Your task to perform on an android device: Clear all items from cart on target.com. Search for "bose quietcomfort 35" on target.com, select the first entry, and add it to the cart. Image 0: 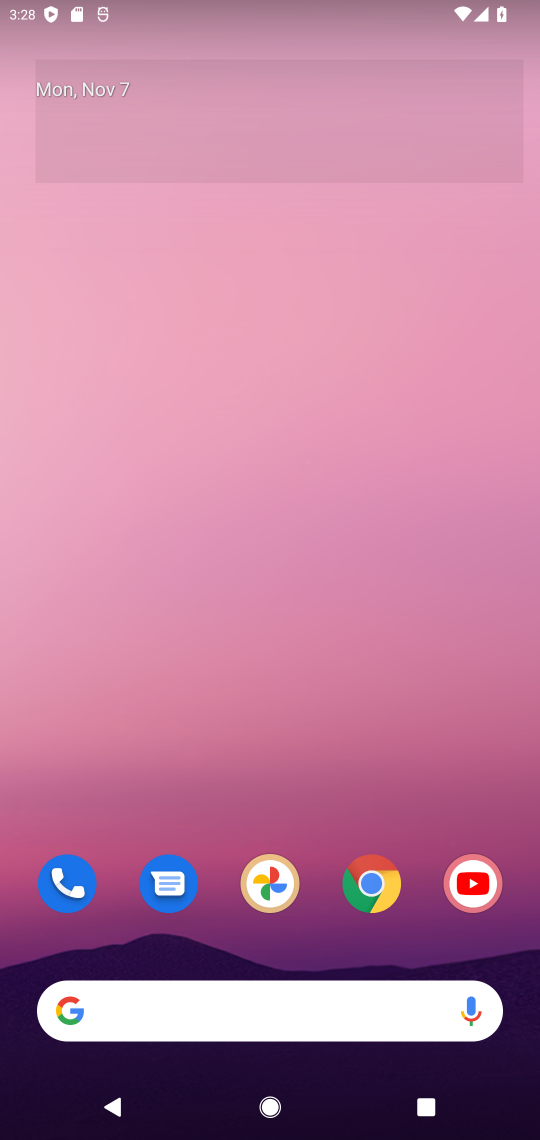
Step 0: click (372, 877)
Your task to perform on an android device: Clear all items from cart on target.com. Search for "bose quietcomfort 35" on target.com, select the first entry, and add it to the cart. Image 1: 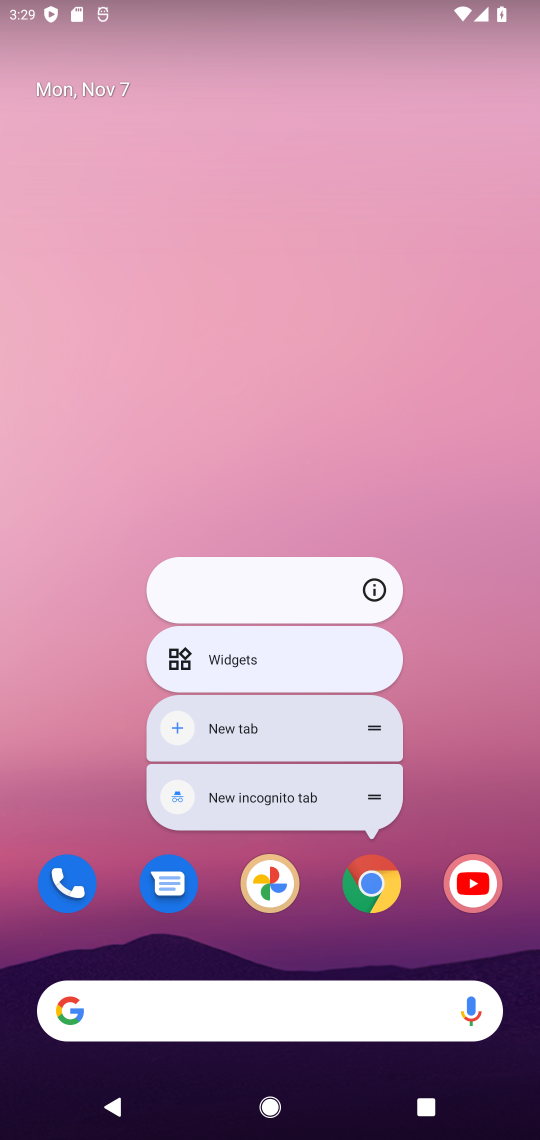
Step 1: click (372, 895)
Your task to perform on an android device: Clear all items from cart on target.com. Search for "bose quietcomfort 35" on target.com, select the first entry, and add it to the cart. Image 2: 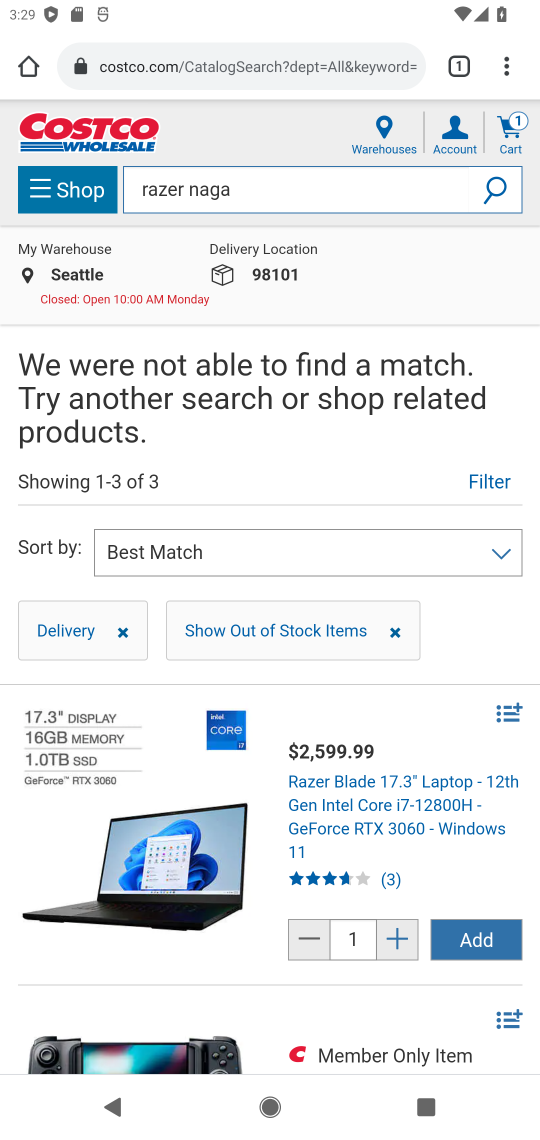
Step 2: click (221, 65)
Your task to perform on an android device: Clear all items from cart on target.com. Search for "bose quietcomfort 35" on target.com, select the first entry, and add it to the cart. Image 3: 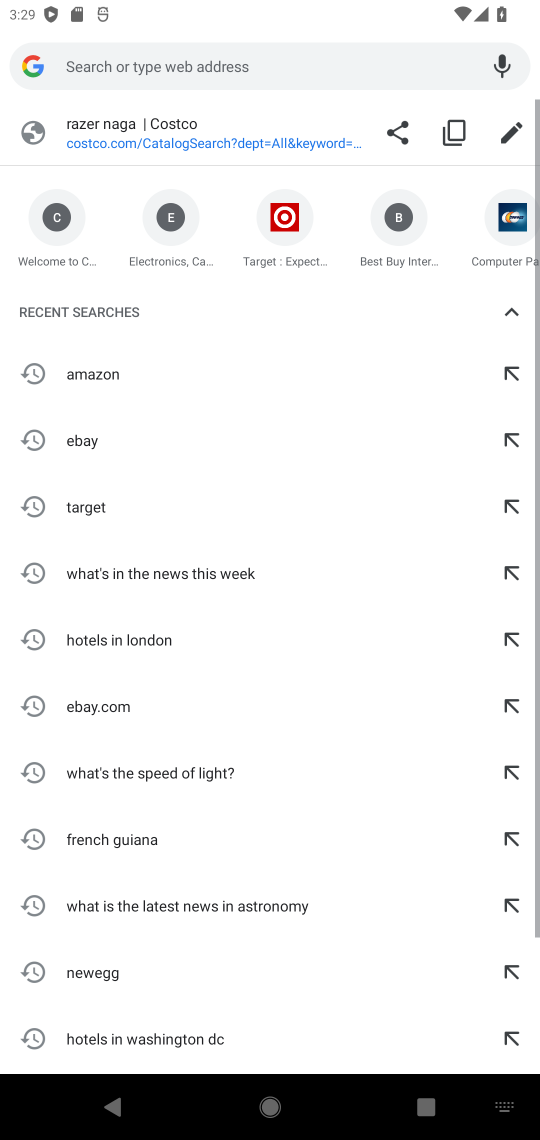
Step 3: click (282, 212)
Your task to perform on an android device: Clear all items from cart on target.com. Search for "bose quietcomfort 35" on target.com, select the first entry, and add it to the cart. Image 4: 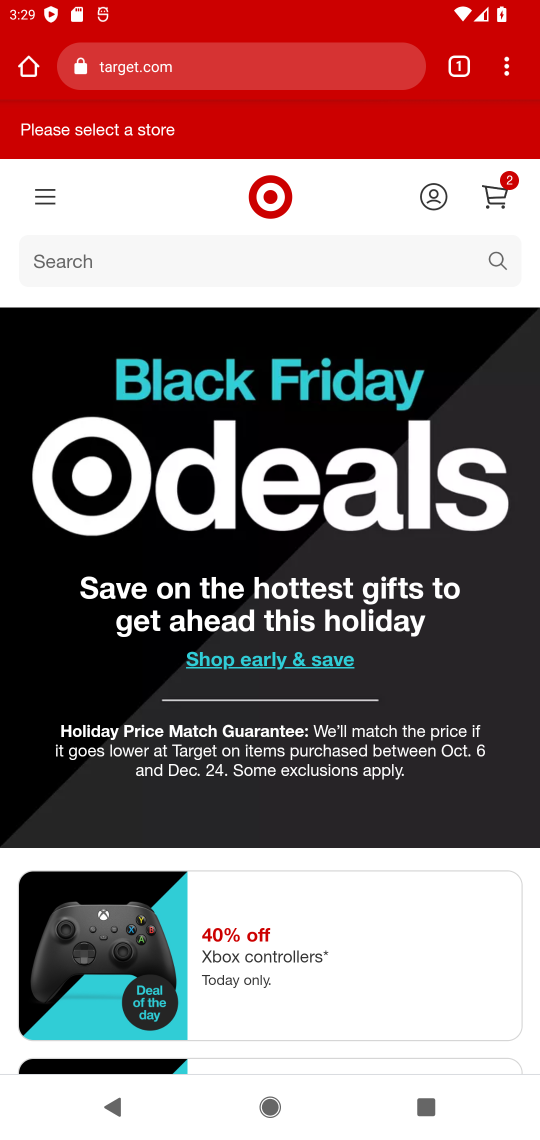
Step 4: click (486, 190)
Your task to perform on an android device: Clear all items from cart on target.com. Search for "bose quietcomfort 35" on target.com, select the first entry, and add it to the cart. Image 5: 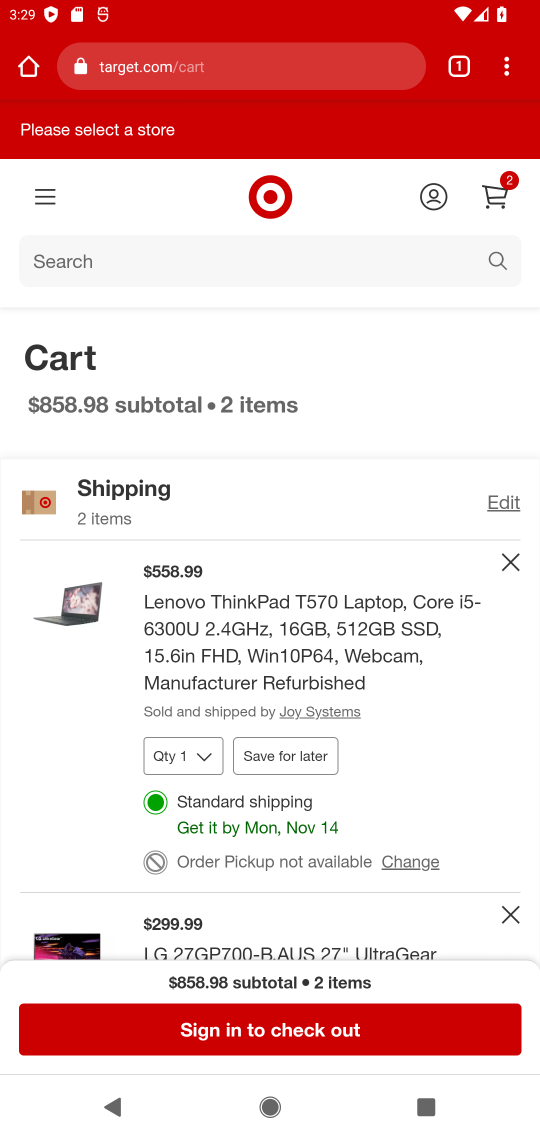
Step 5: click (513, 558)
Your task to perform on an android device: Clear all items from cart on target.com. Search for "bose quietcomfort 35" on target.com, select the first entry, and add it to the cart. Image 6: 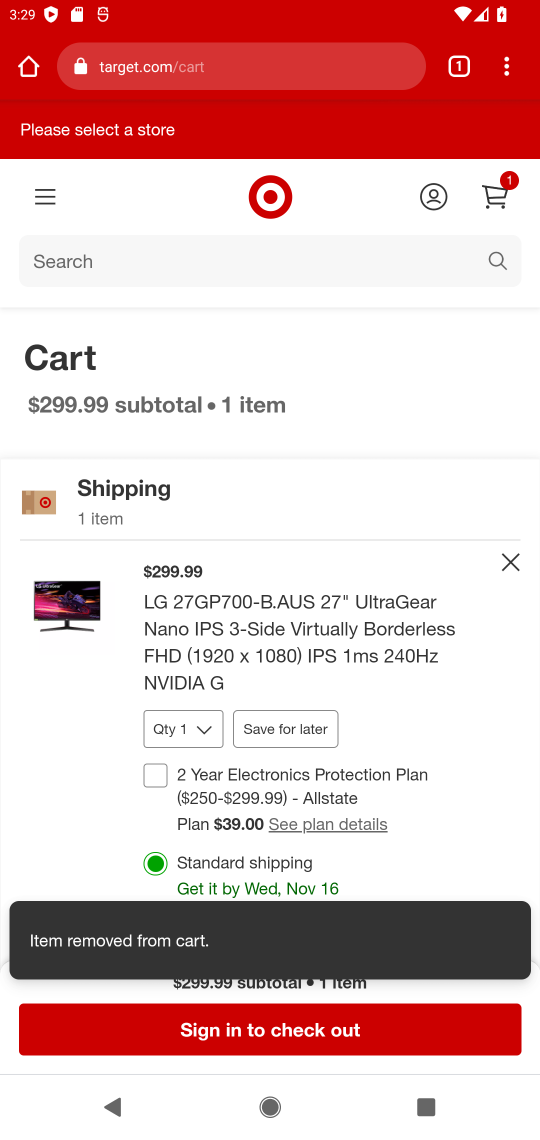
Step 6: click (502, 561)
Your task to perform on an android device: Clear all items from cart on target.com. Search for "bose quietcomfort 35" on target.com, select the first entry, and add it to the cart. Image 7: 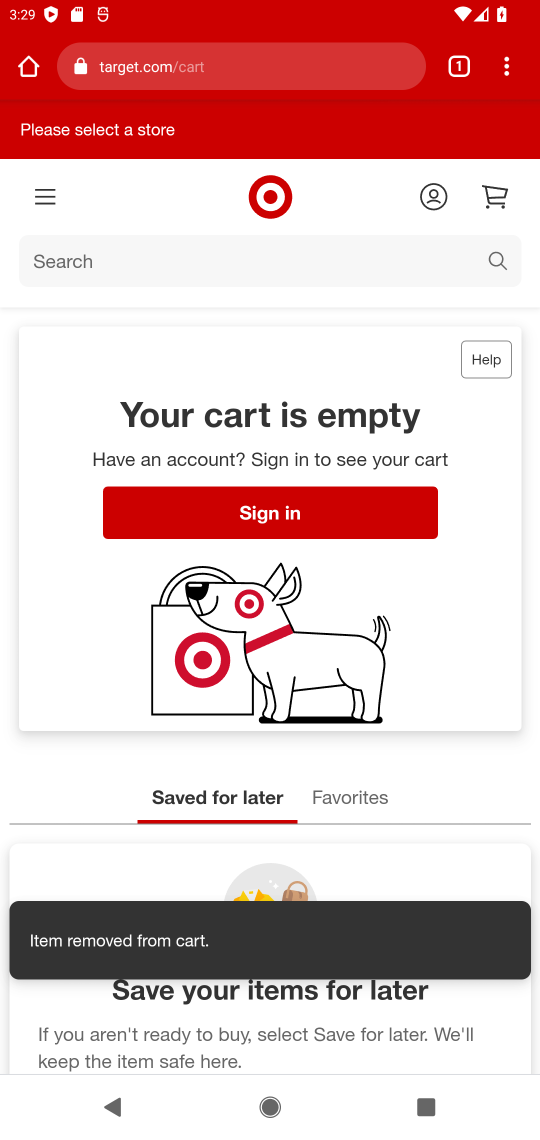
Step 7: click (63, 260)
Your task to perform on an android device: Clear all items from cart on target.com. Search for "bose quietcomfort 35" on target.com, select the first entry, and add it to the cart. Image 8: 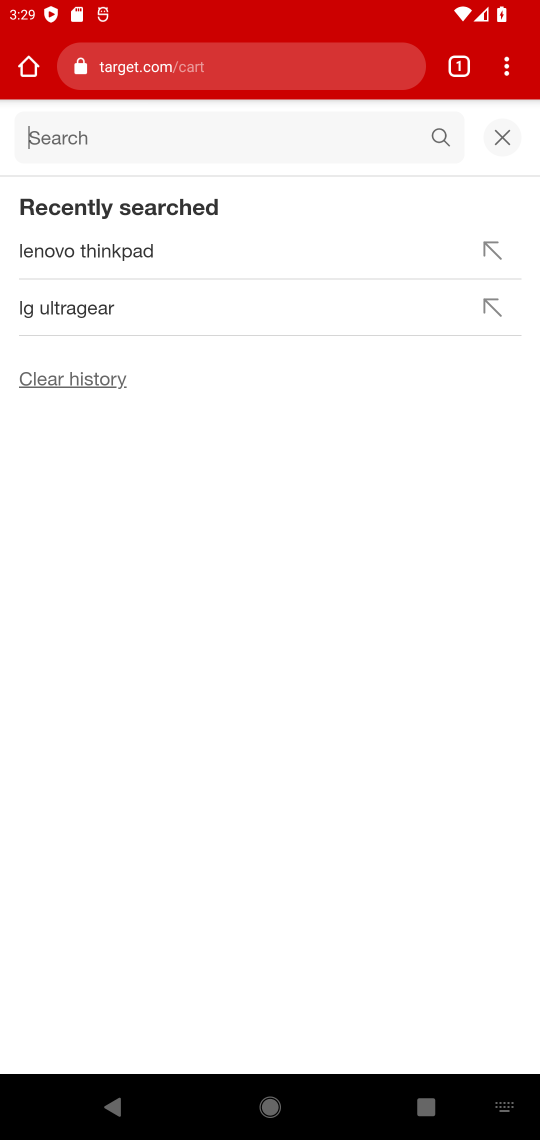
Step 8: press enter
Your task to perform on an android device: Clear all items from cart on target.com. Search for "bose quietcomfort 35" on target.com, select the first entry, and add it to the cart. Image 9: 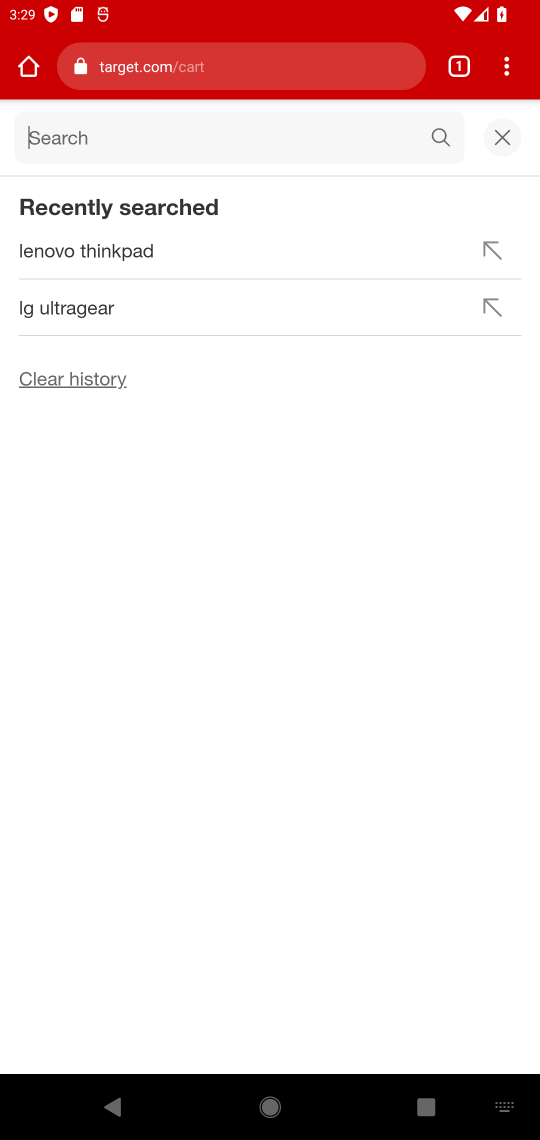
Step 9: type "bose quietcomfort 35"
Your task to perform on an android device: Clear all items from cart on target.com. Search for "bose quietcomfort 35" on target.com, select the first entry, and add it to the cart. Image 10: 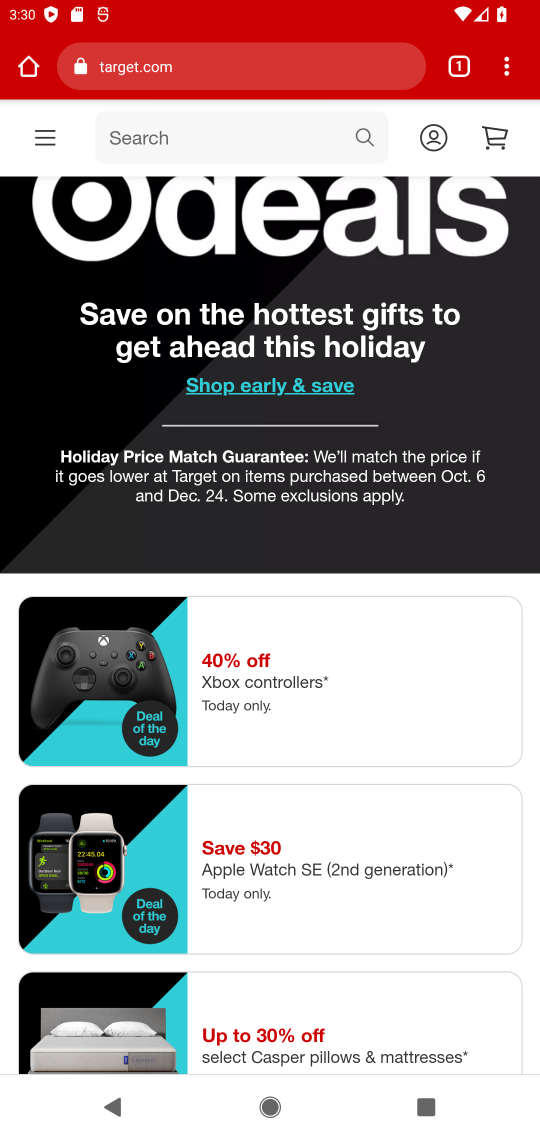
Step 10: drag from (239, 932) to (255, 1000)
Your task to perform on an android device: Clear all items from cart on target.com. Search for "bose quietcomfort 35" on target.com, select the first entry, and add it to the cart. Image 11: 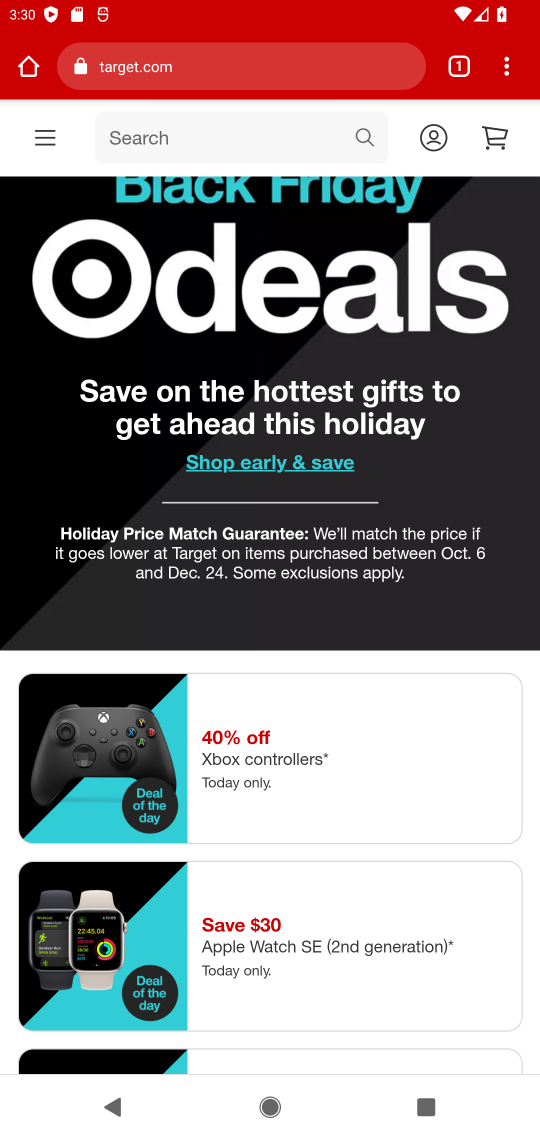
Step 11: click (168, 136)
Your task to perform on an android device: Clear all items from cart on target.com. Search for "bose quietcomfort 35" on target.com, select the first entry, and add it to the cart. Image 12: 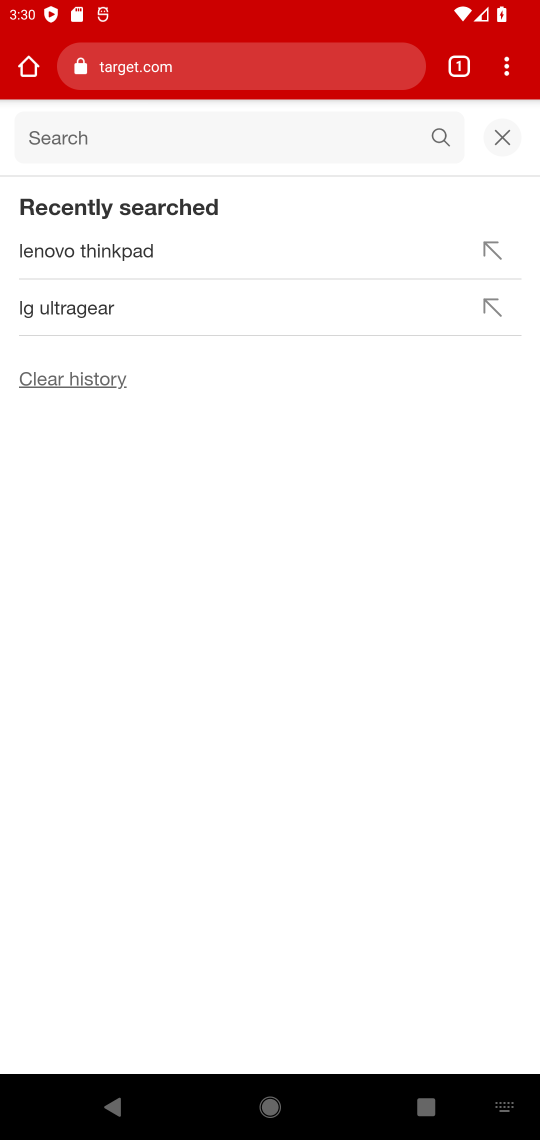
Step 12: type "bose quietcomfort 35"
Your task to perform on an android device: Clear all items from cart on target.com. Search for "bose quietcomfort 35" on target.com, select the first entry, and add it to the cart. Image 13: 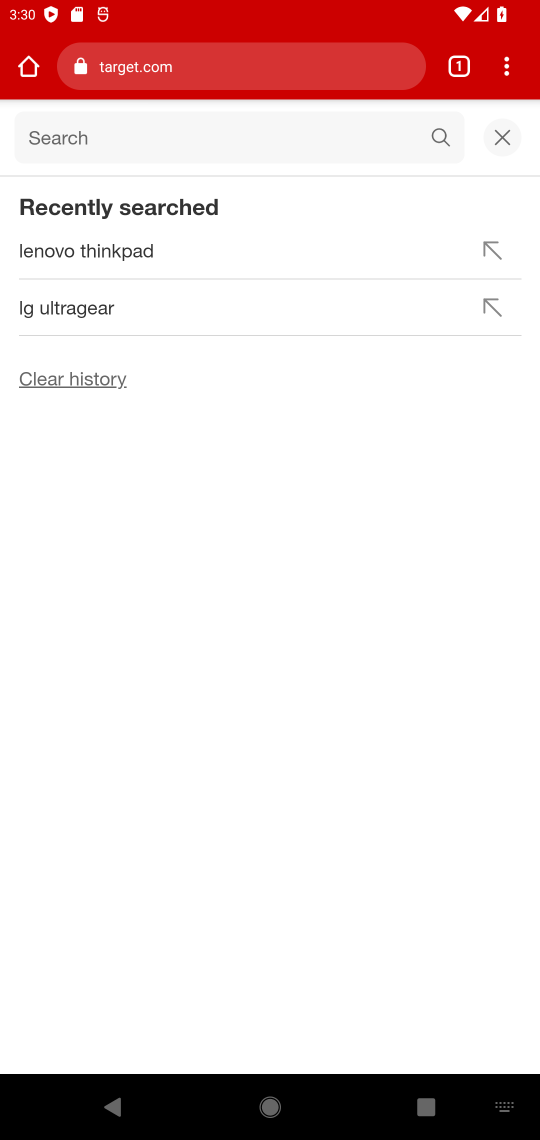
Step 13: press enter
Your task to perform on an android device: Clear all items from cart on target.com. Search for "bose quietcomfort 35" on target.com, select the first entry, and add it to the cart. Image 14: 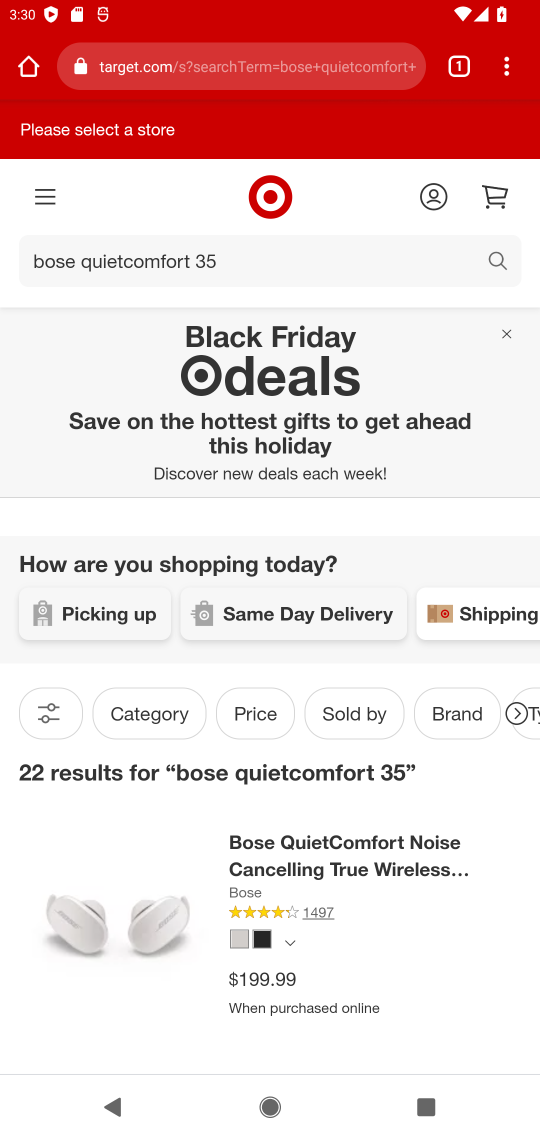
Step 14: drag from (273, 977) to (423, 662)
Your task to perform on an android device: Clear all items from cart on target.com. Search for "bose quietcomfort 35" on target.com, select the first entry, and add it to the cart. Image 15: 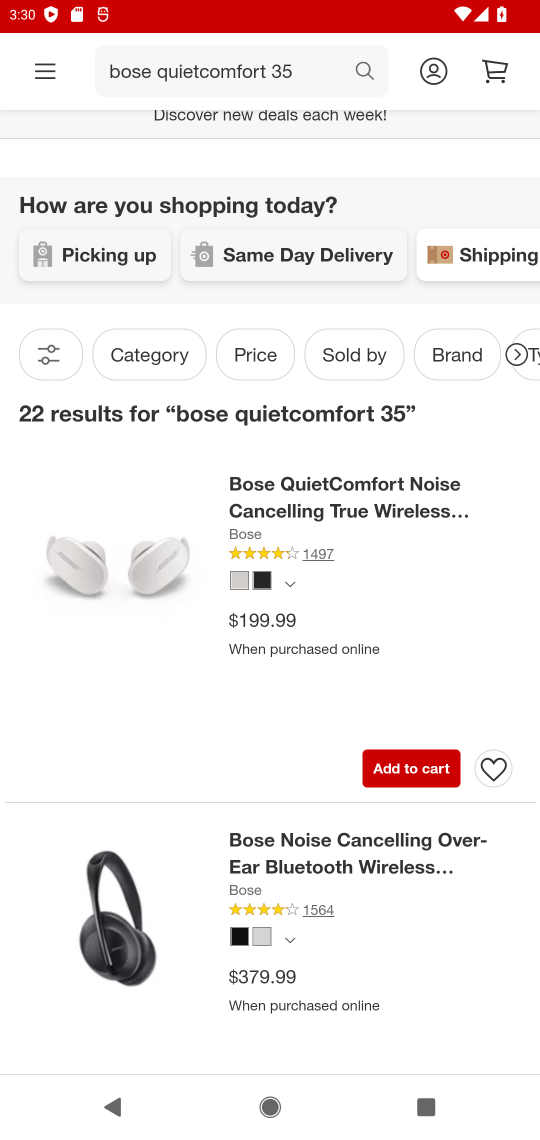
Step 15: click (418, 766)
Your task to perform on an android device: Clear all items from cart on target.com. Search for "bose quietcomfort 35" on target.com, select the first entry, and add it to the cart. Image 16: 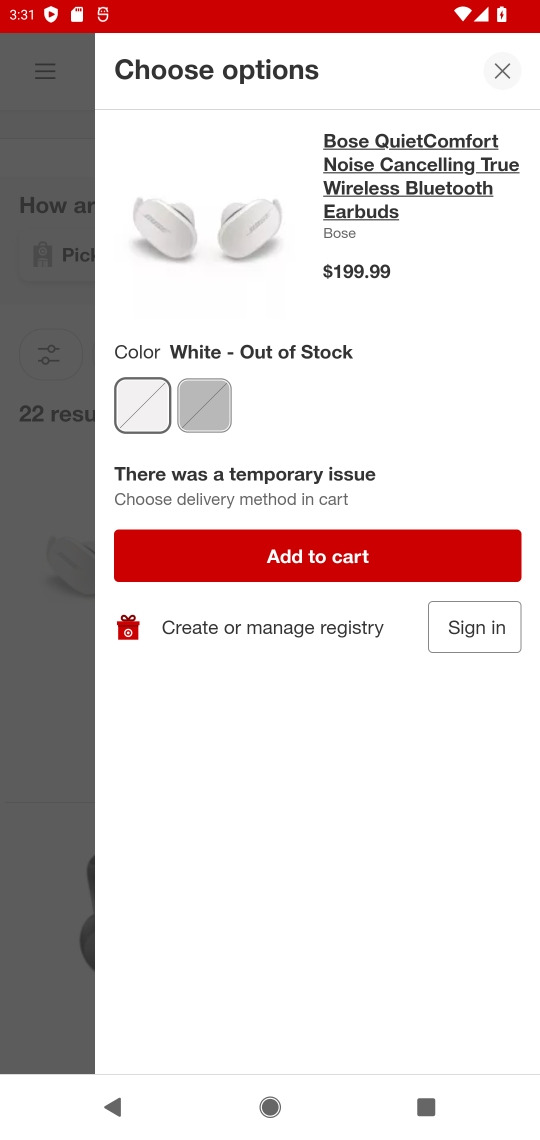
Step 16: click (319, 565)
Your task to perform on an android device: Clear all items from cart on target.com. Search for "bose quietcomfort 35" on target.com, select the first entry, and add it to the cart. Image 17: 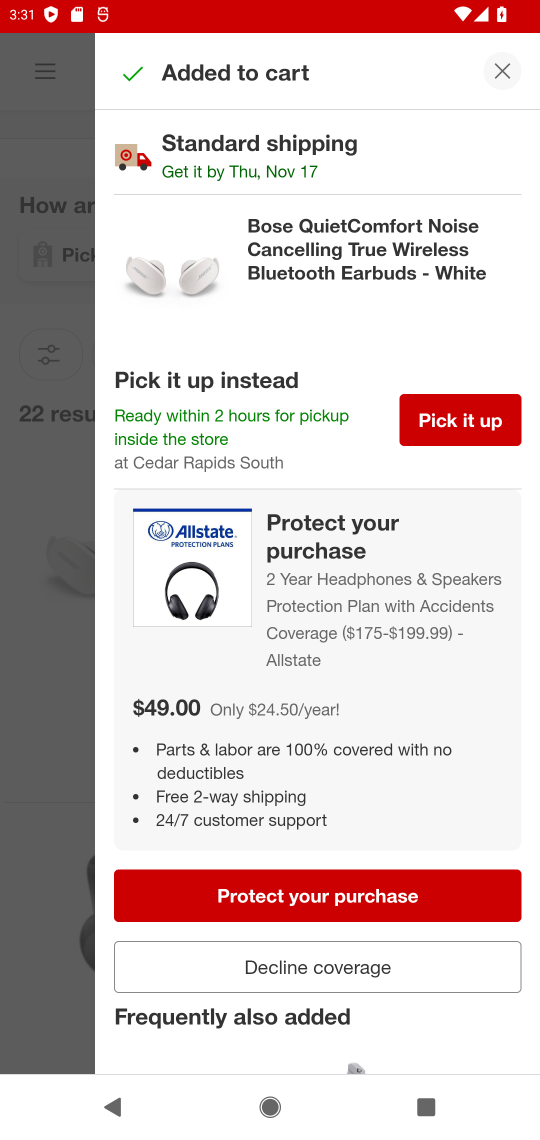
Step 17: click (306, 968)
Your task to perform on an android device: Clear all items from cart on target.com. Search for "bose quietcomfort 35" on target.com, select the first entry, and add it to the cart. Image 18: 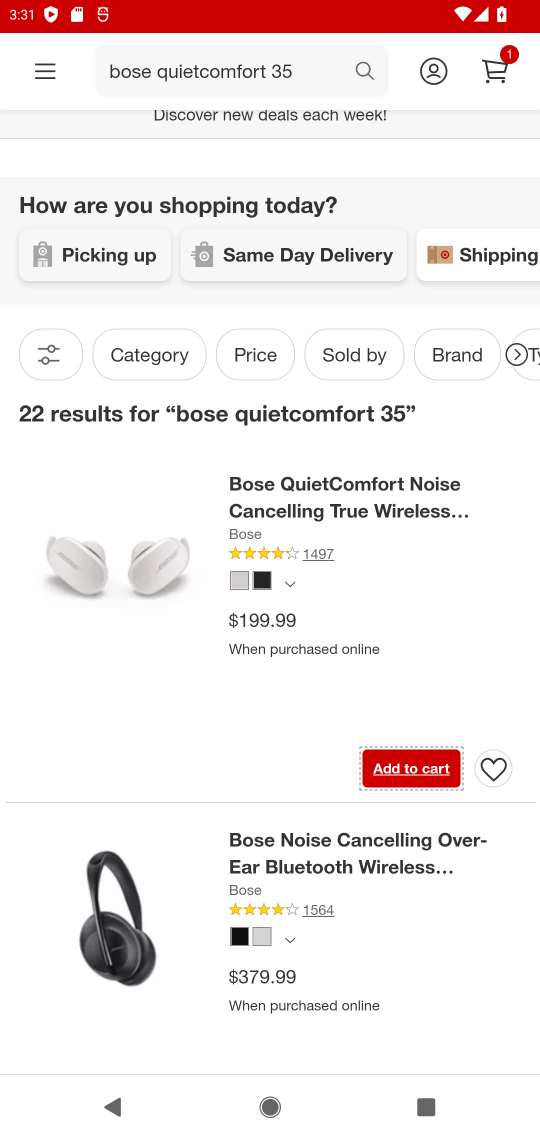
Step 18: click (503, 67)
Your task to perform on an android device: Clear all items from cart on target.com. Search for "bose quietcomfort 35" on target.com, select the first entry, and add it to the cart. Image 19: 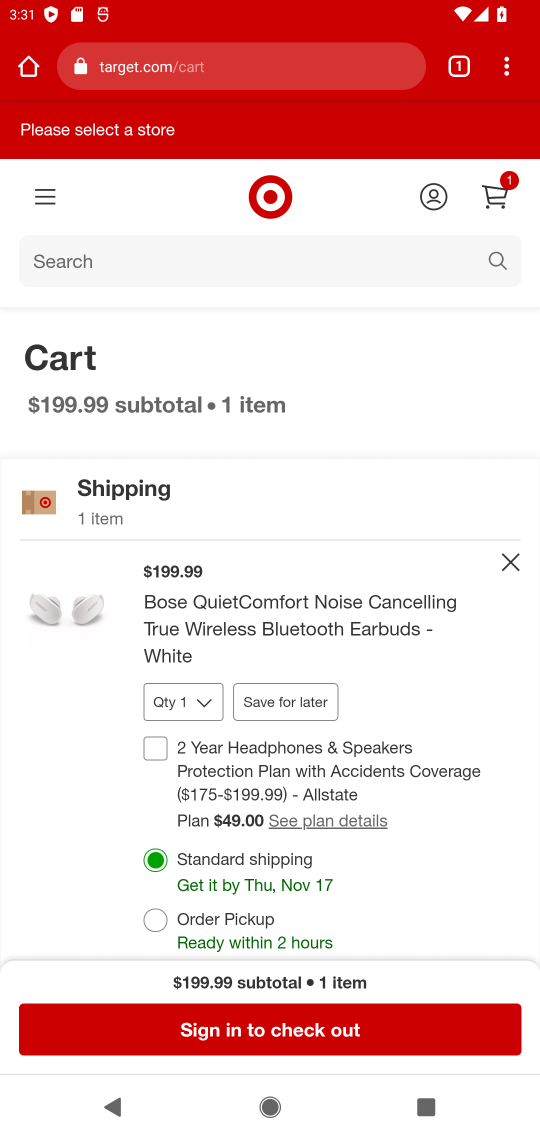
Step 19: task complete